Your task to perform on an android device: open app "ZOOM Cloud Meetings" Image 0: 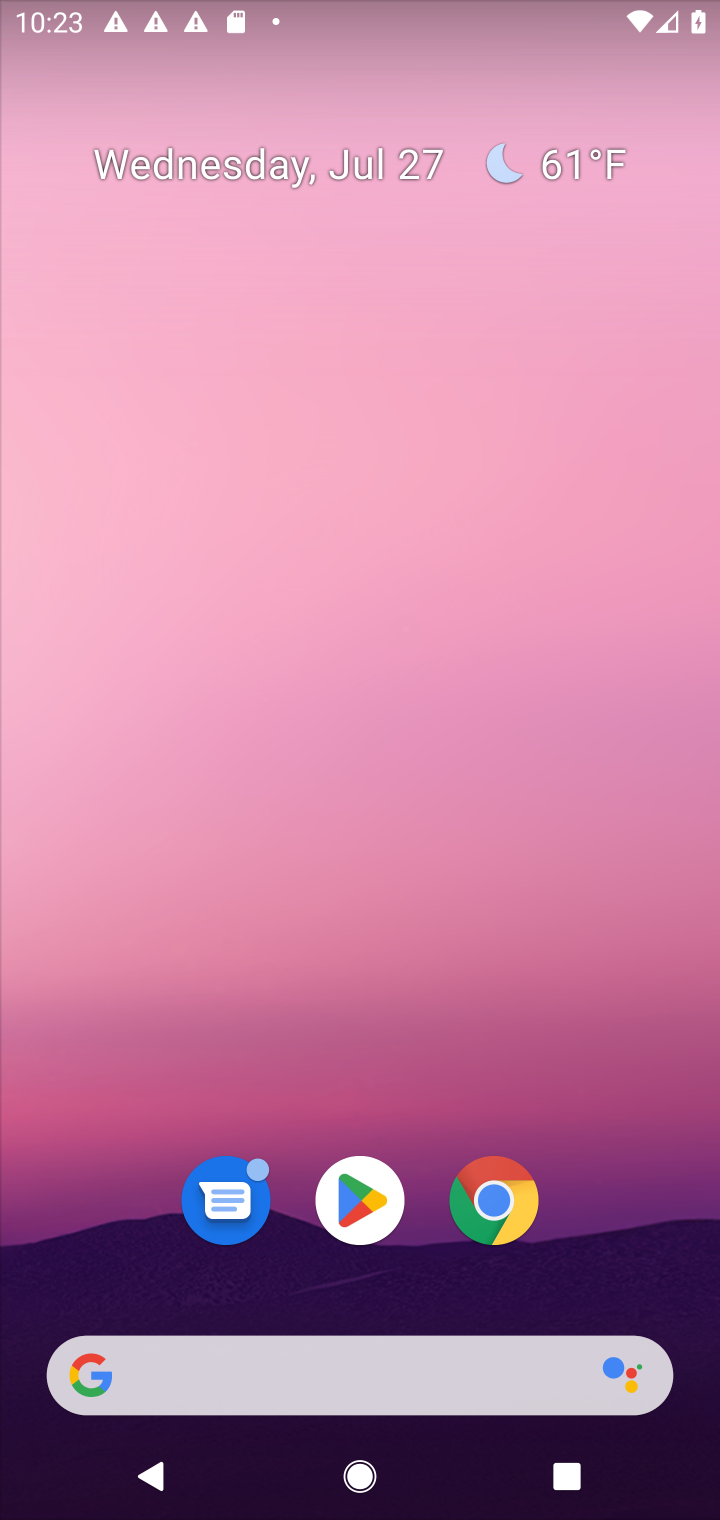
Step 0: click (373, 1210)
Your task to perform on an android device: open app "ZOOM Cloud Meetings" Image 1: 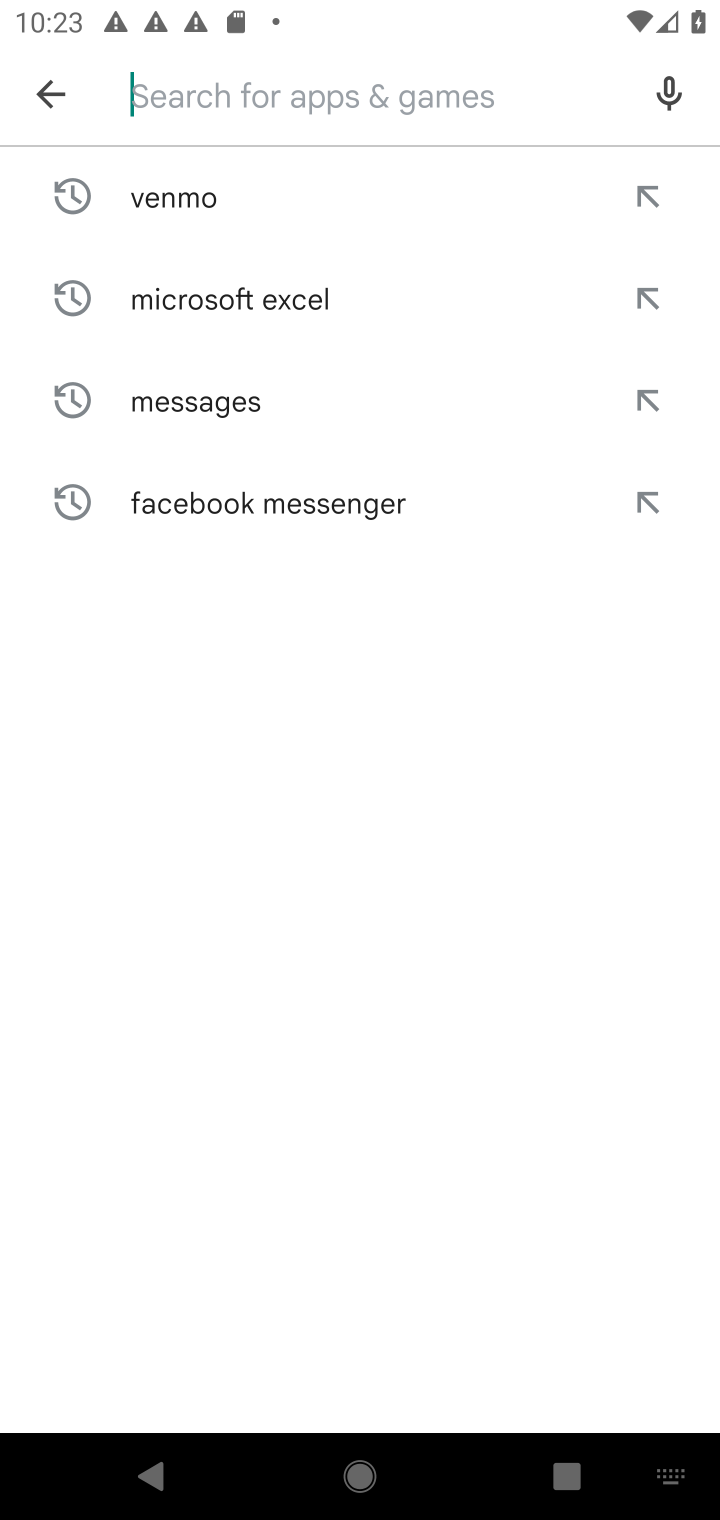
Step 1: click (231, 105)
Your task to perform on an android device: open app "ZOOM Cloud Meetings" Image 2: 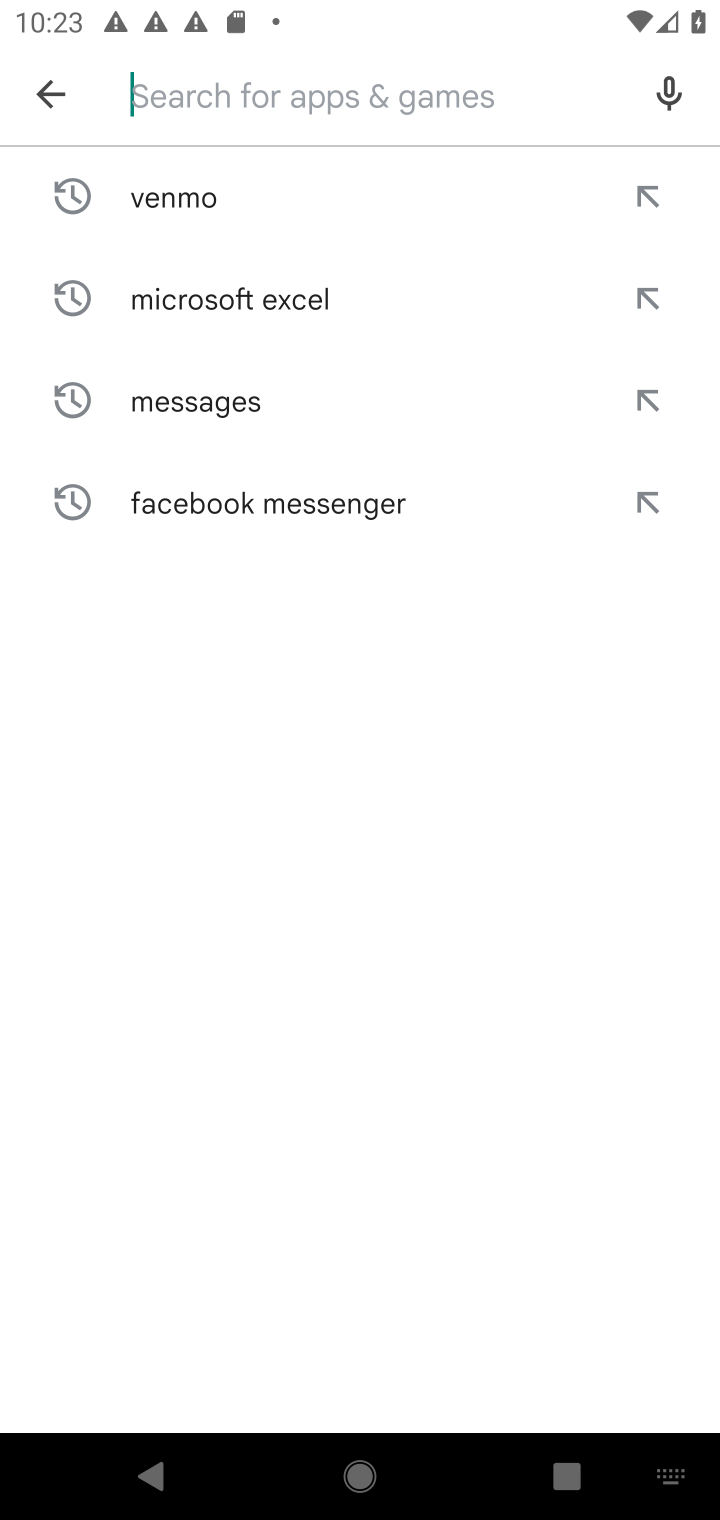
Step 2: type "zoom cloud meetings"
Your task to perform on an android device: open app "ZOOM Cloud Meetings" Image 3: 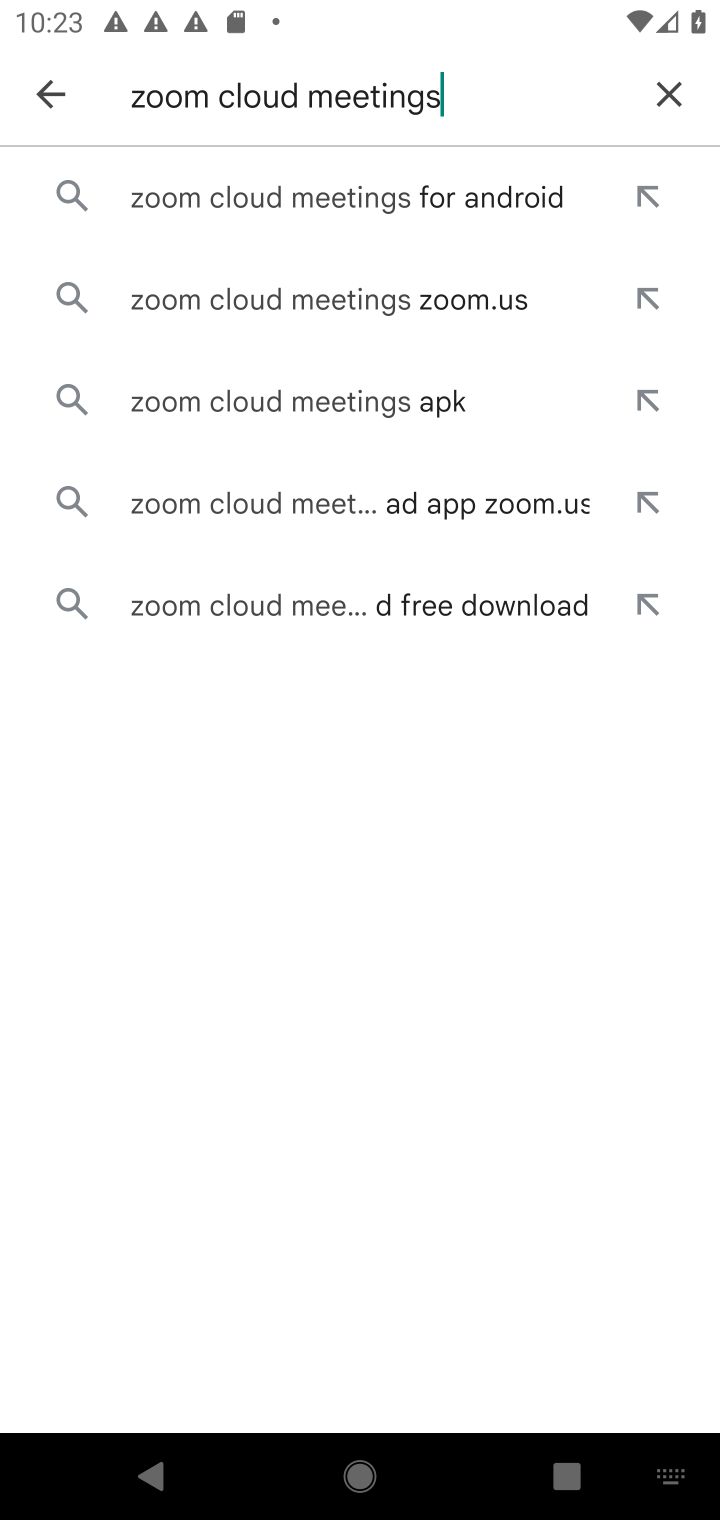
Step 3: click (299, 189)
Your task to perform on an android device: open app "ZOOM Cloud Meetings" Image 4: 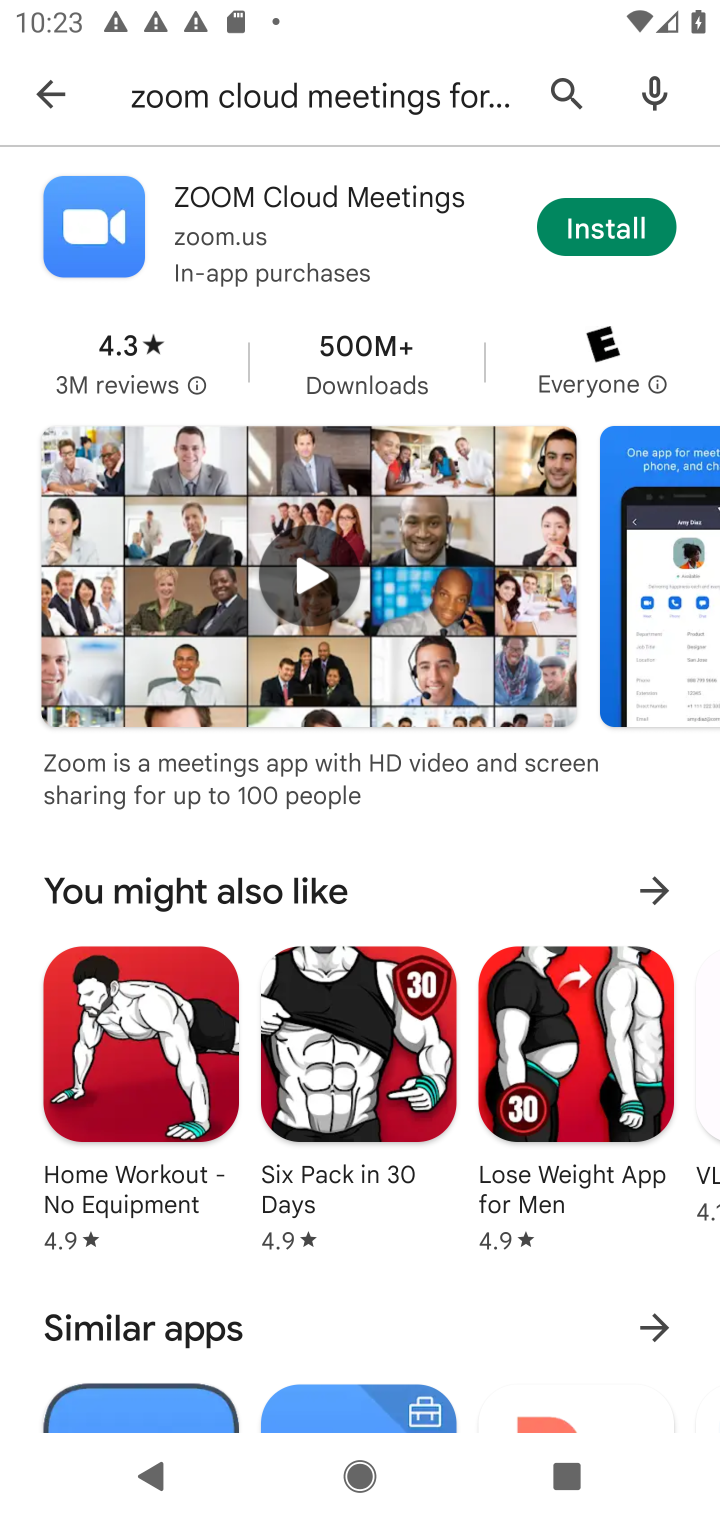
Step 4: click (590, 222)
Your task to perform on an android device: open app "ZOOM Cloud Meetings" Image 5: 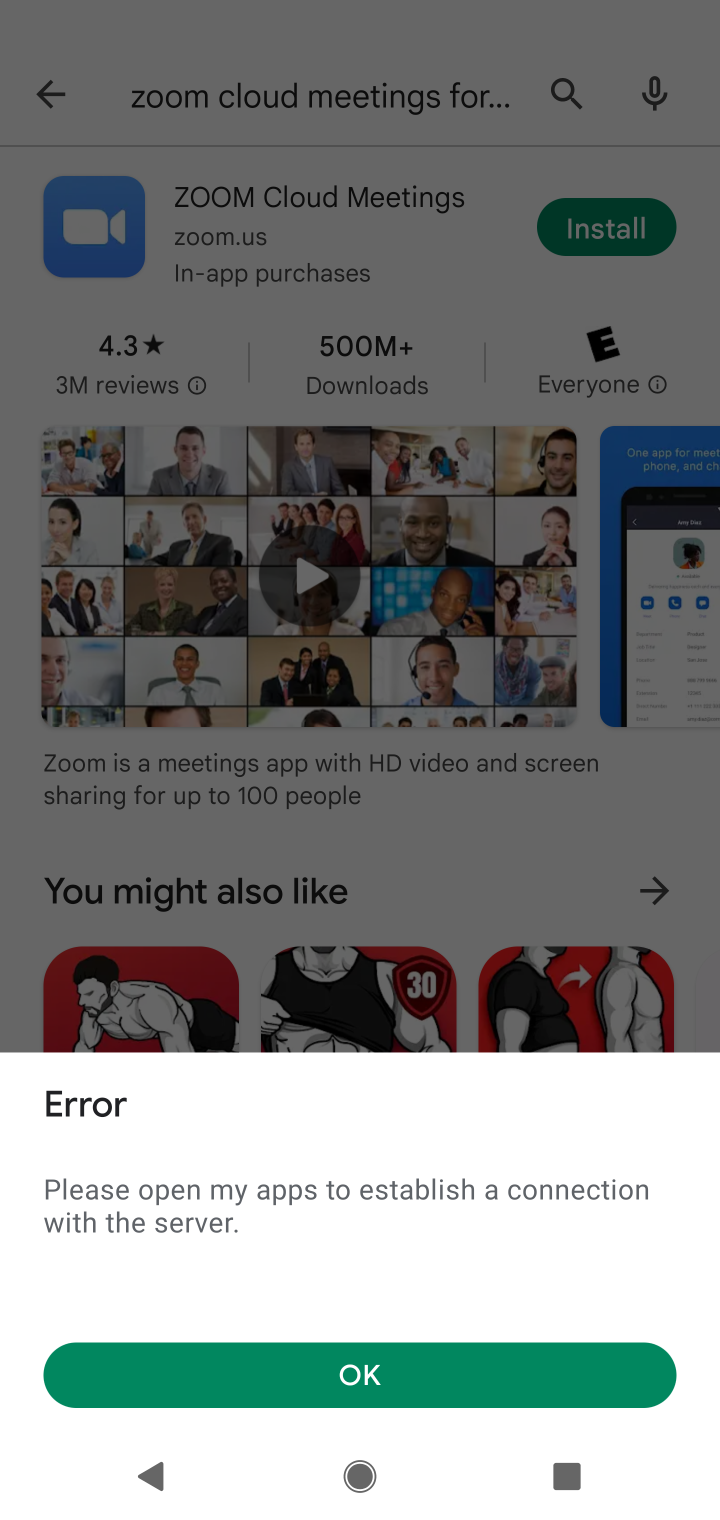
Step 5: click (360, 1367)
Your task to perform on an android device: open app "ZOOM Cloud Meetings" Image 6: 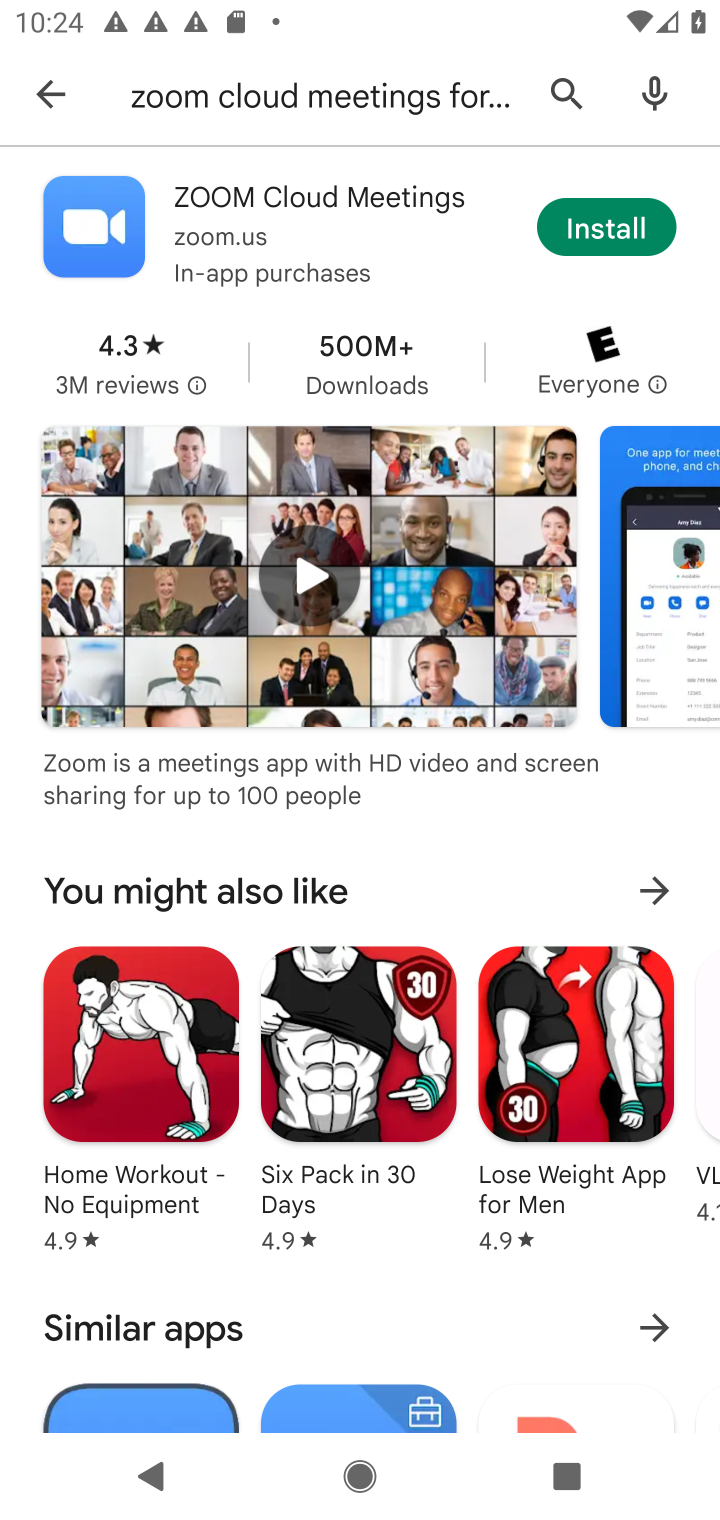
Step 6: task complete